Your task to perform on an android device: clear history in the chrome app Image 0: 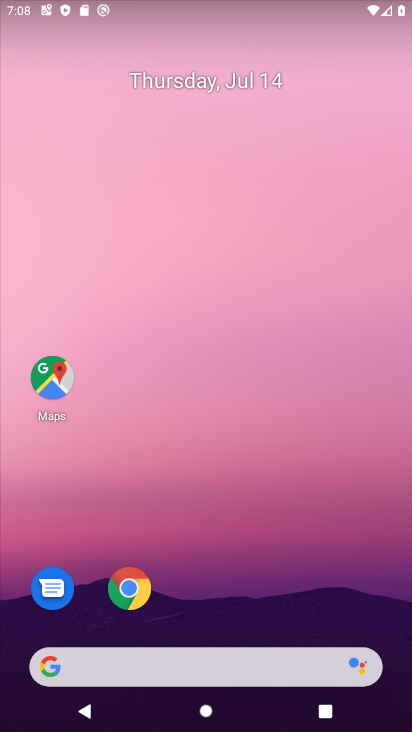
Step 0: drag from (357, 629) to (284, 13)
Your task to perform on an android device: clear history in the chrome app Image 1: 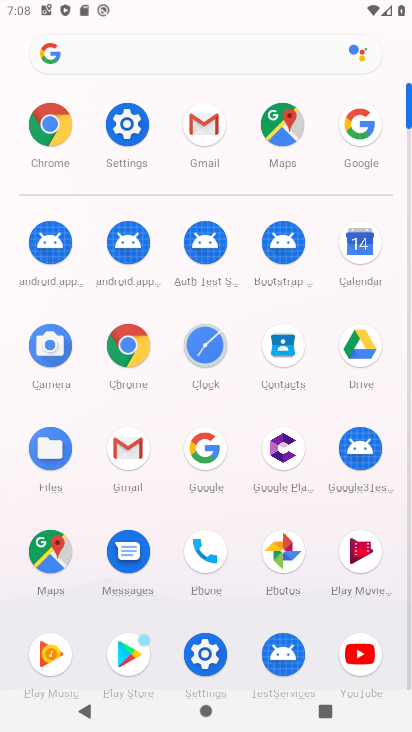
Step 1: click (42, 139)
Your task to perform on an android device: clear history in the chrome app Image 2: 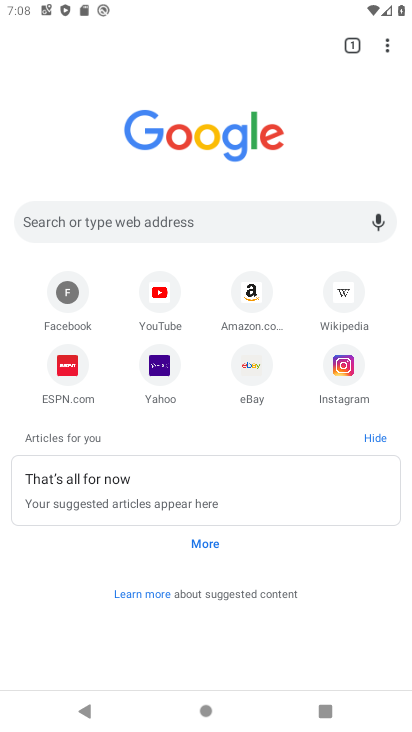
Step 2: click (391, 48)
Your task to perform on an android device: clear history in the chrome app Image 3: 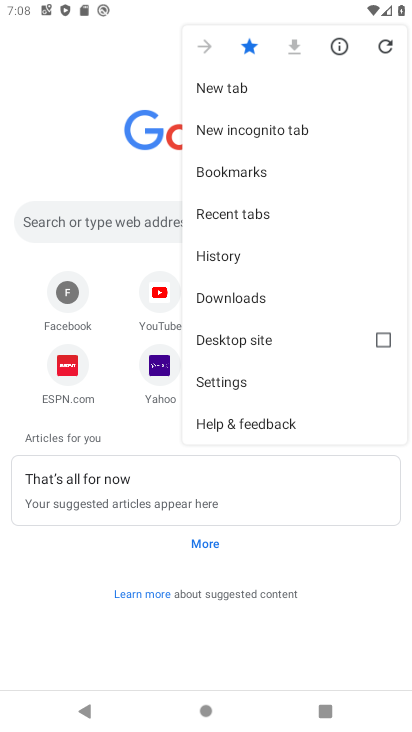
Step 3: click (216, 256)
Your task to perform on an android device: clear history in the chrome app Image 4: 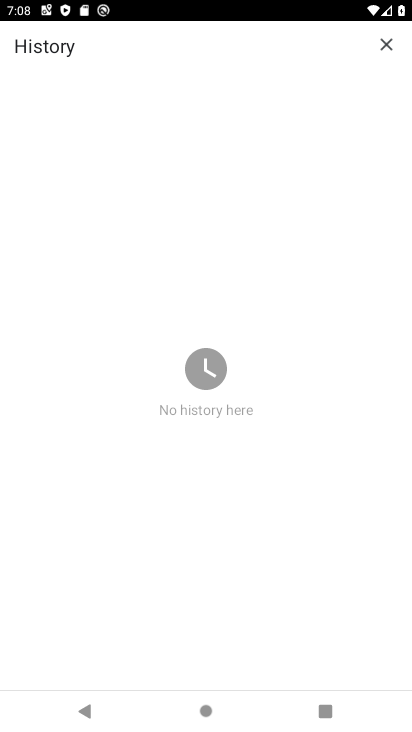
Step 4: task complete